Your task to perform on an android device: Open the stopwatch Image 0: 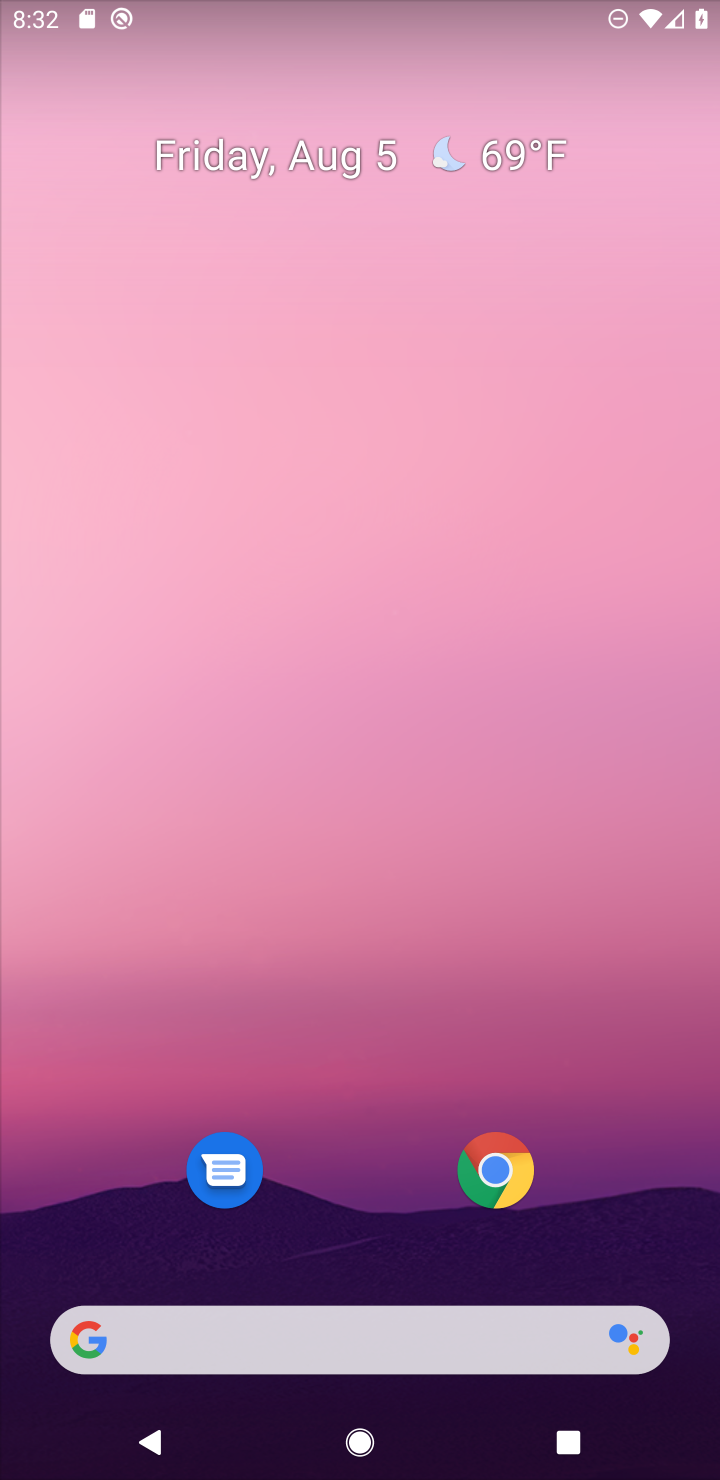
Step 0: drag from (651, 1231) to (588, 200)
Your task to perform on an android device: Open the stopwatch Image 1: 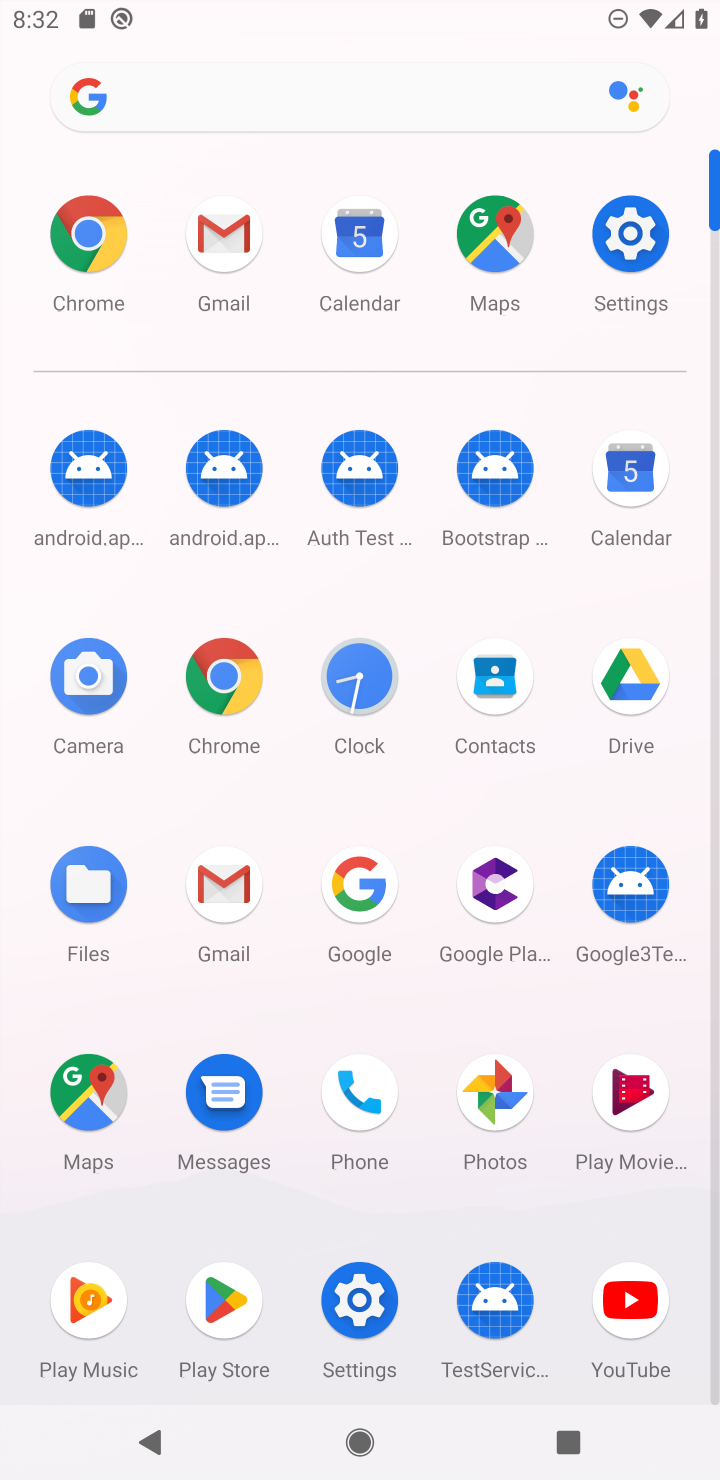
Step 1: click (354, 671)
Your task to perform on an android device: Open the stopwatch Image 2: 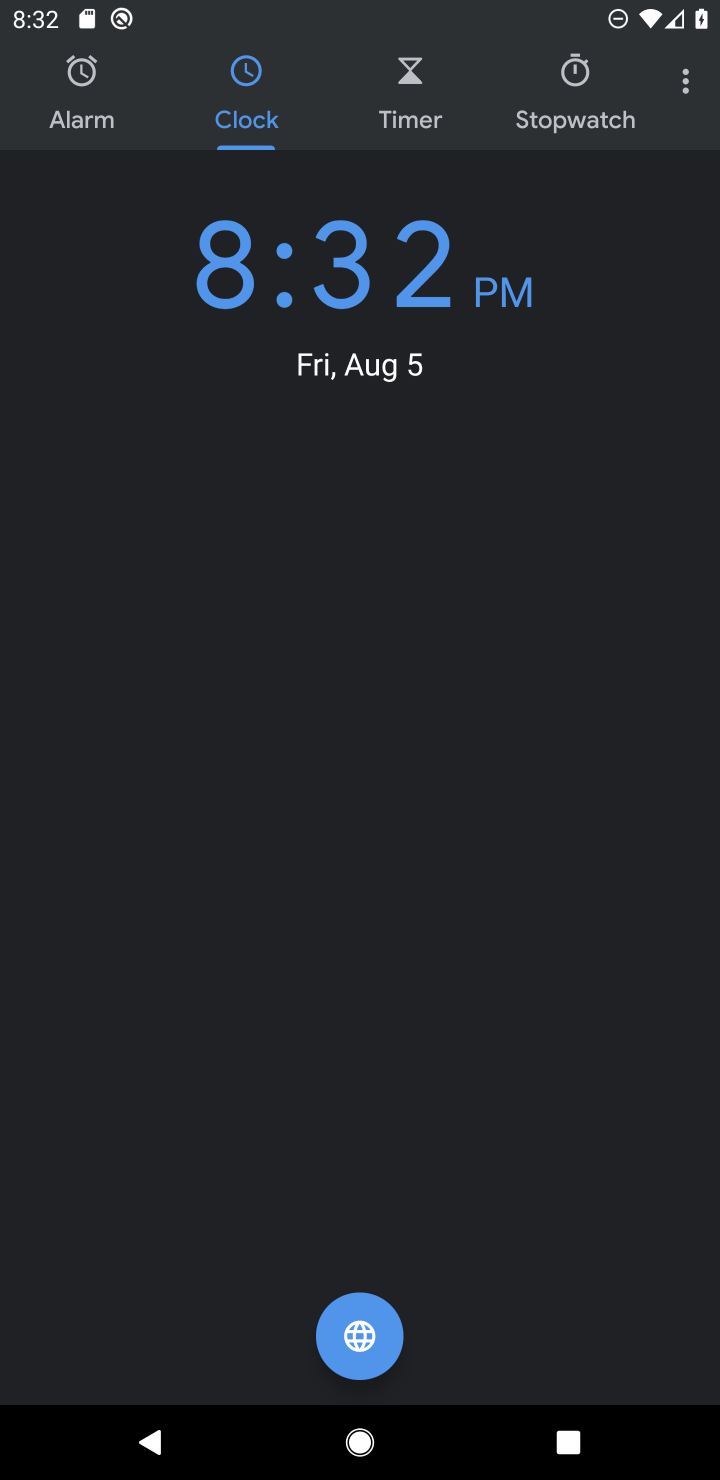
Step 2: click (565, 79)
Your task to perform on an android device: Open the stopwatch Image 3: 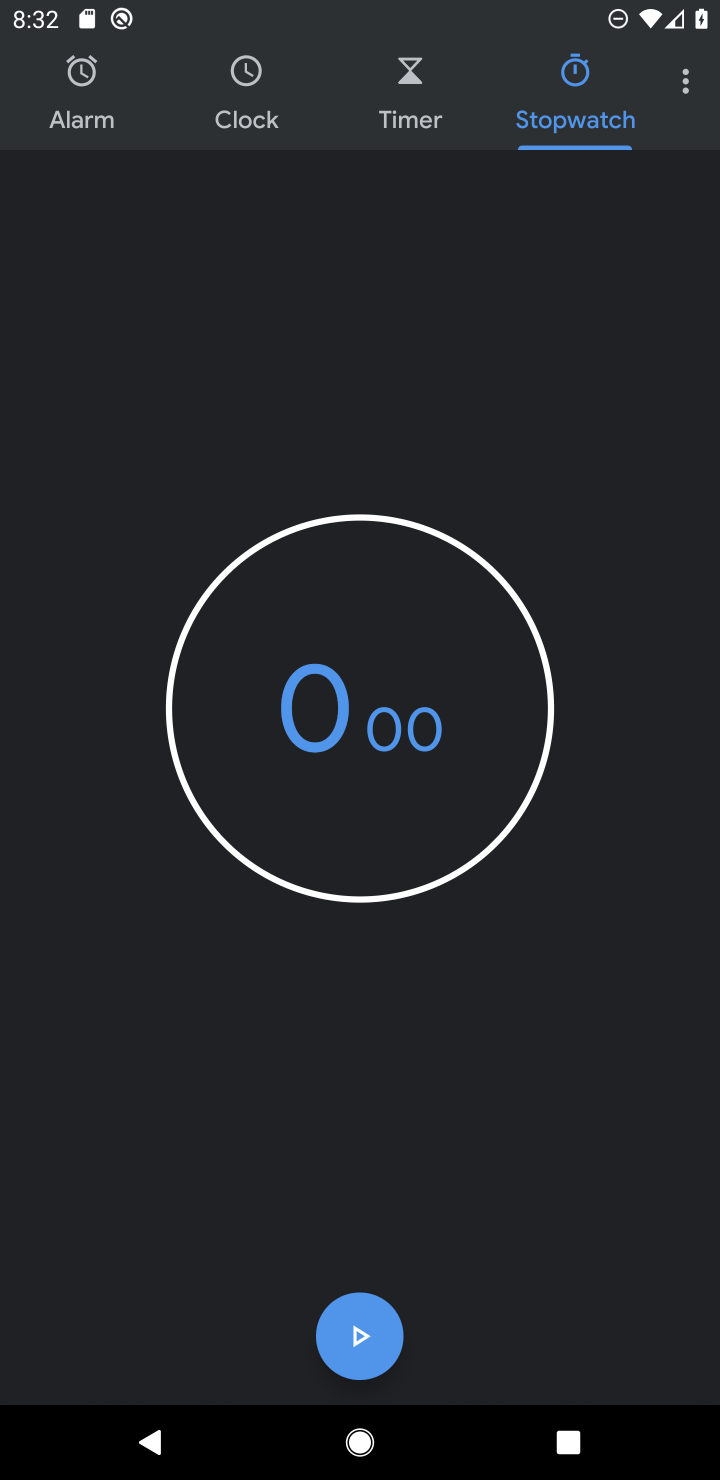
Step 3: task complete